Your task to perform on an android device: turn notification dots off Image 0: 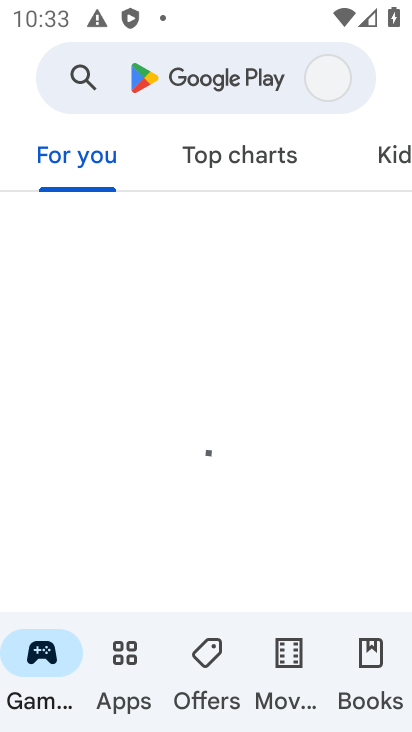
Step 0: press home button
Your task to perform on an android device: turn notification dots off Image 1: 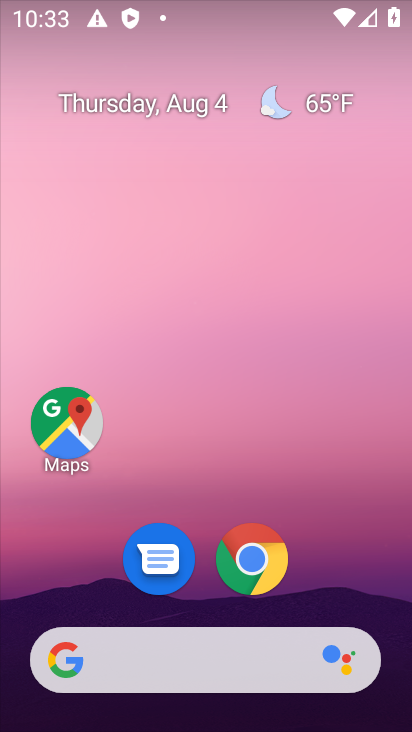
Step 1: drag from (209, 642) to (191, 52)
Your task to perform on an android device: turn notification dots off Image 2: 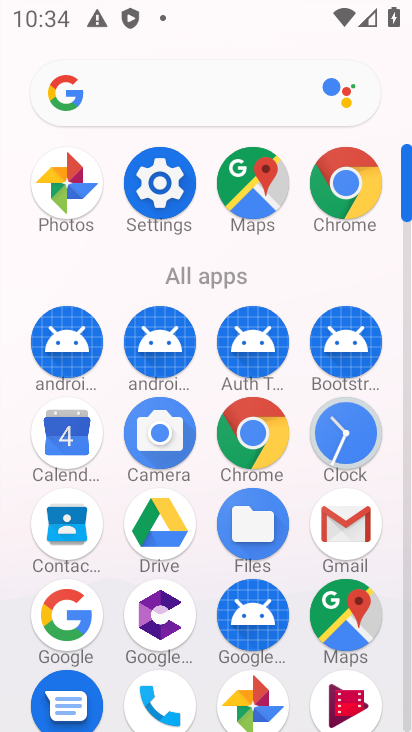
Step 2: click (158, 198)
Your task to perform on an android device: turn notification dots off Image 3: 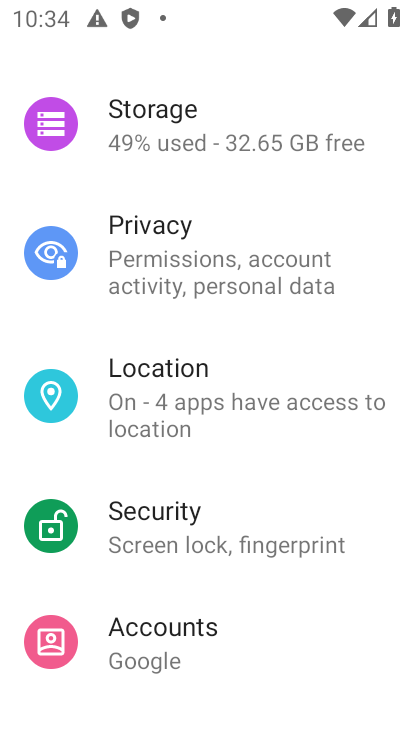
Step 3: drag from (216, 174) to (286, 722)
Your task to perform on an android device: turn notification dots off Image 4: 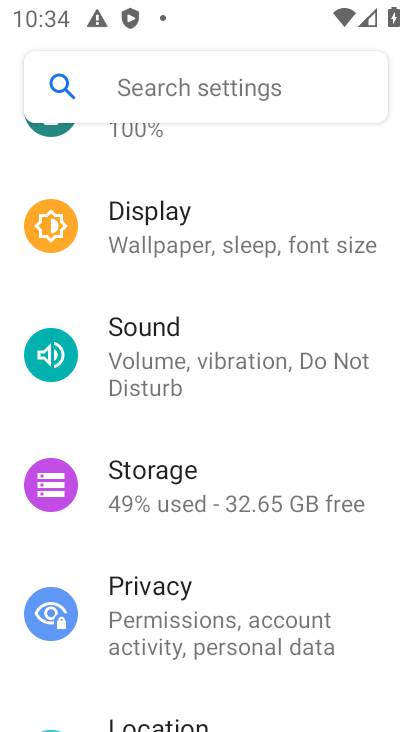
Step 4: drag from (204, 194) to (276, 572)
Your task to perform on an android device: turn notification dots off Image 5: 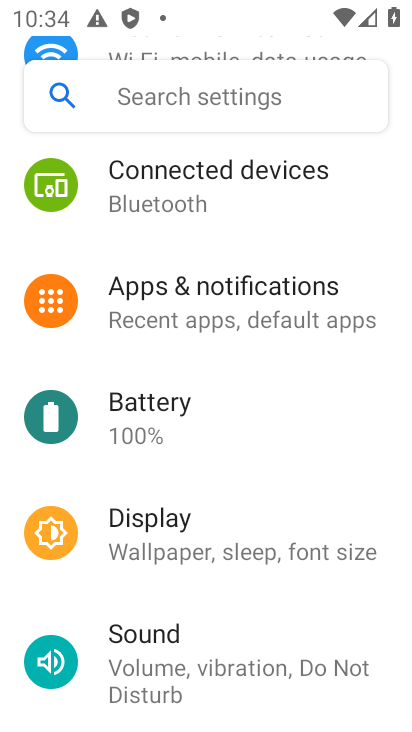
Step 5: click (212, 296)
Your task to perform on an android device: turn notification dots off Image 6: 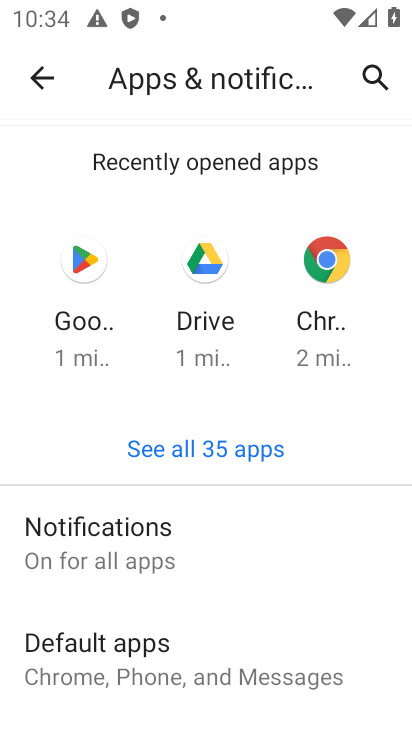
Step 6: click (170, 530)
Your task to perform on an android device: turn notification dots off Image 7: 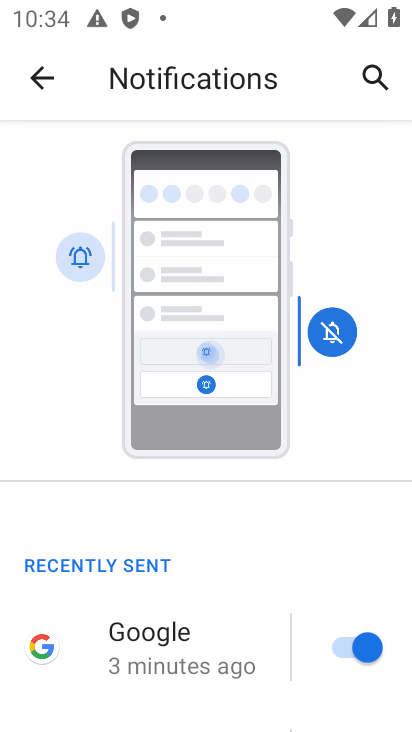
Step 7: drag from (209, 593) to (157, 199)
Your task to perform on an android device: turn notification dots off Image 8: 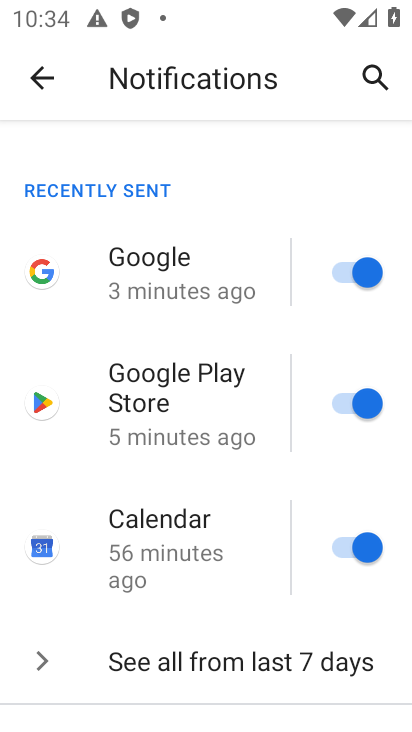
Step 8: drag from (175, 669) to (159, 170)
Your task to perform on an android device: turn notification dots off Image 9: 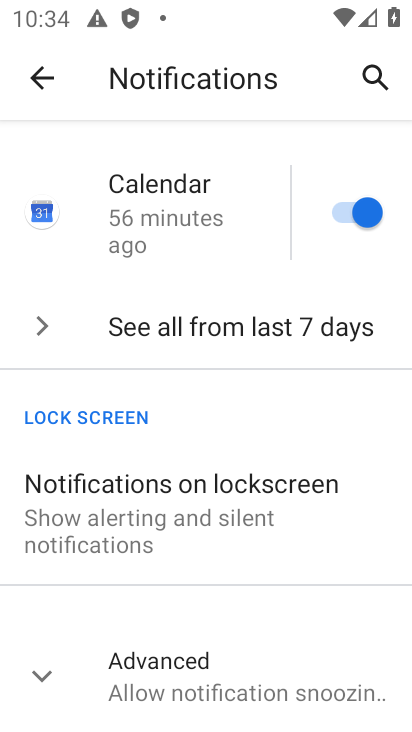
Step 9: click (191, 696)
Your task to perform on an android device: turn notification dots off Image 10: 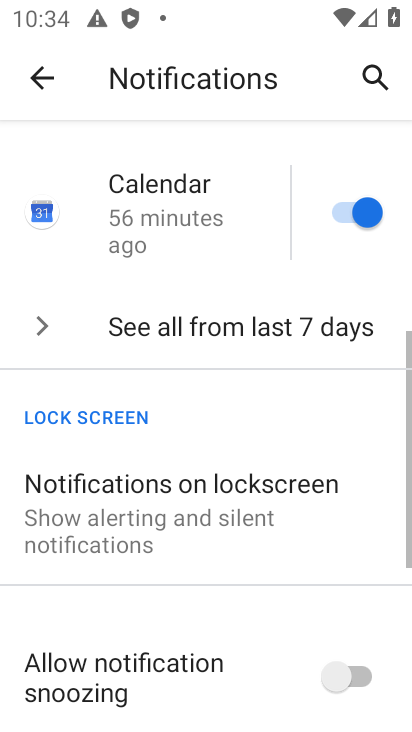
Step 10: drag from (240, 654) to (205, 227)
Your task to perform on an android device: turn notification dots off Image 11: 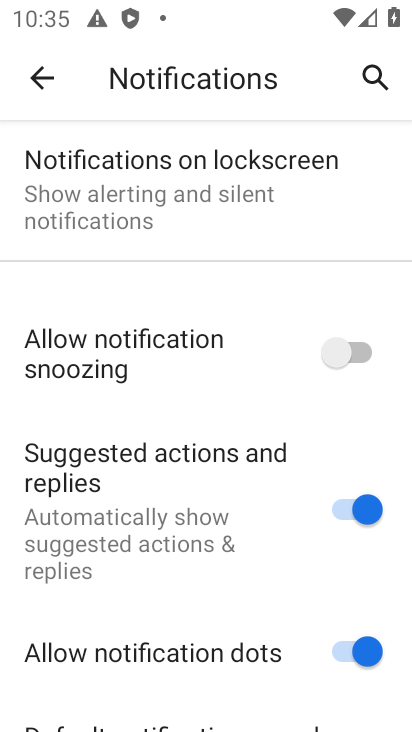
Step 11: click (359, 664)
Your task to perform on an android device: turn notification dots off Image 12: 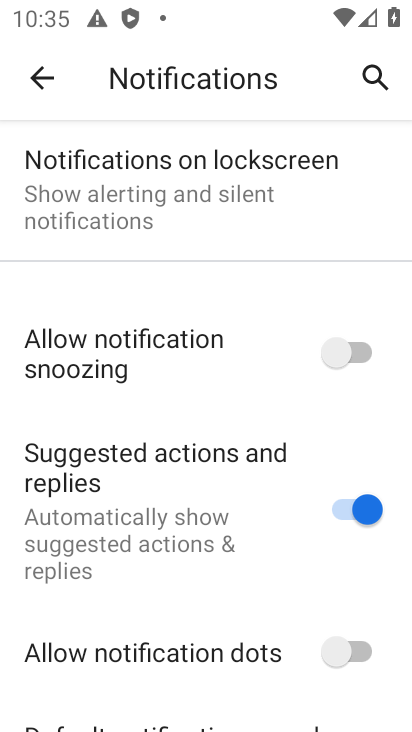
Step 12: task complete